Your task to perform on an android device: Play the last video I watched on Youtube Image 0: 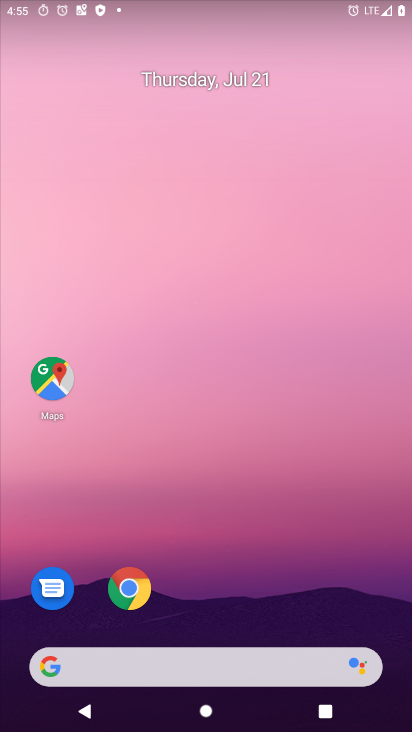
Step 0: drag from (268, 590) to (268, 246)
Your task to perform on an android device: Play the last video I watched on Youtube Image 1: 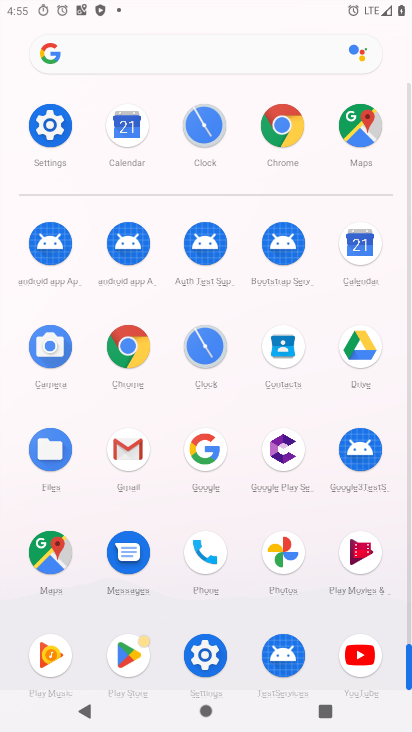
Step 1: click (367, 646)
Your task to perform on an android device: Play the last video I watched on Youtube Image 2: 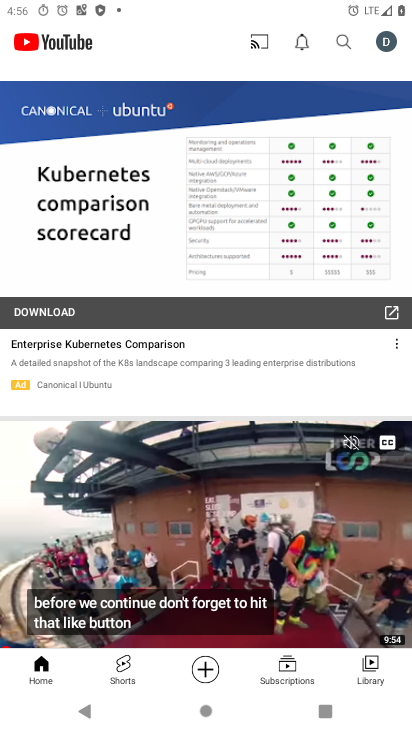
Step 2: click (380, 671)
Your task to perform on an android device: Play the last video I watched on Youtube Image 3: 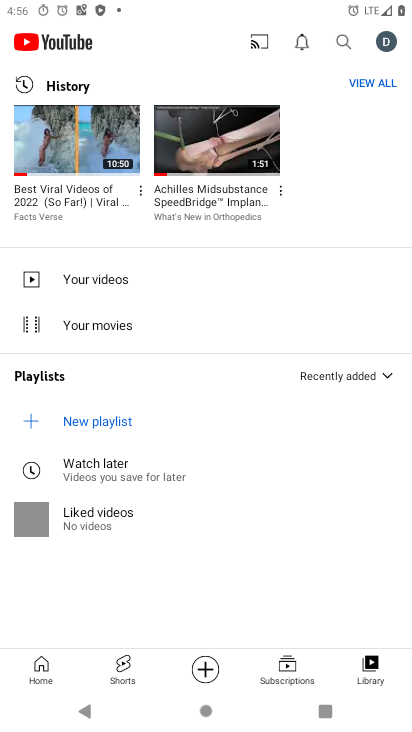
Step 3: click (104, 127)
Your task to perform on an android device: Play the last video I watched on Youtube Image 4: 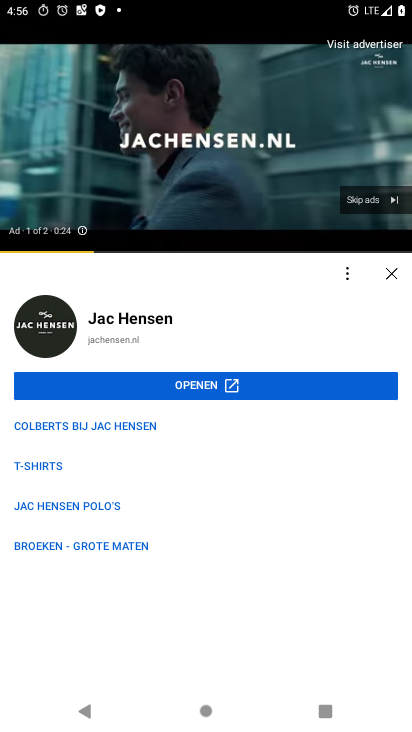
Step 4: click (379, 193)
Your task to perform on an android device: Play the last video I watched on Youtube Image 5: 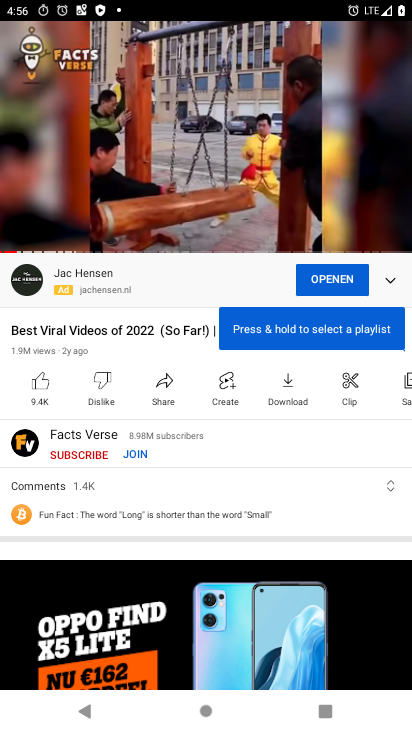
Step 5: task complete